Your task to perform on an android device: Open Google Maps Image 0: 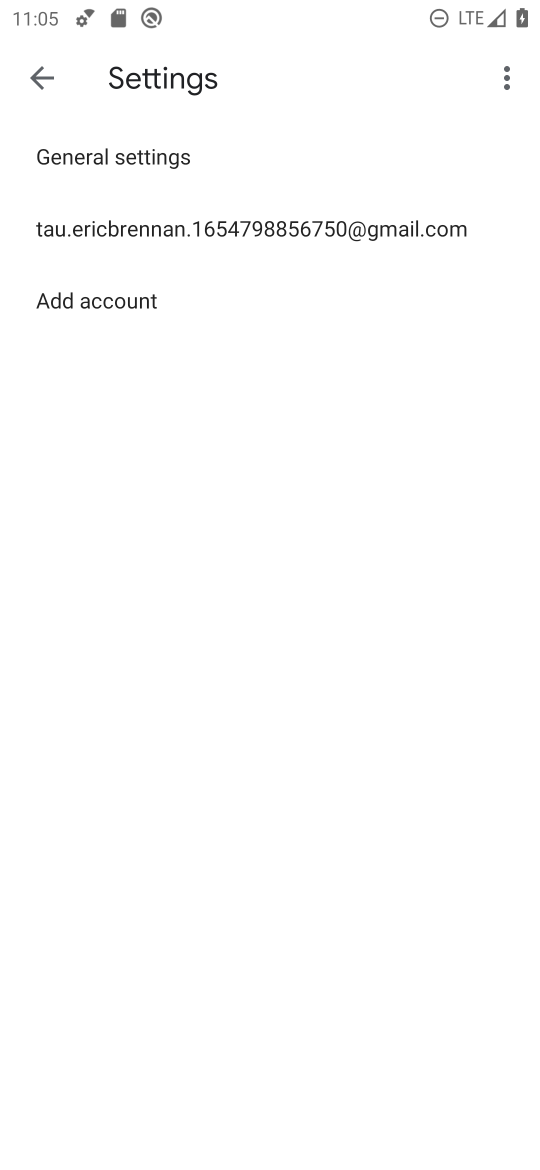
Step 0: press home button
Your task to perform on an android device: Open Google Maps Image 1: 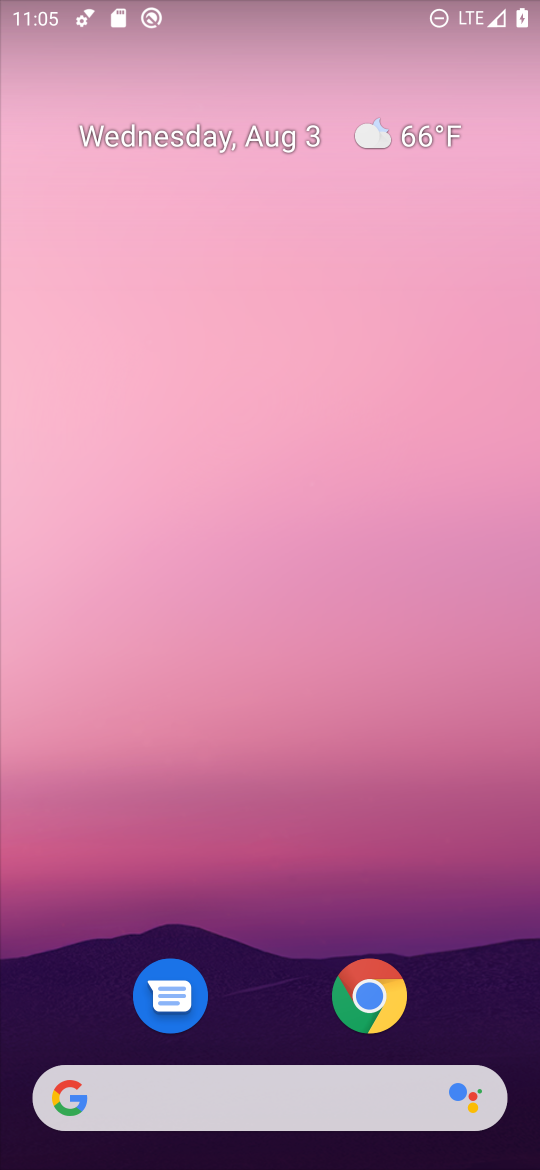
Step 1: drag from (291, 865) to (332, 47)
Your task to perform on an android device: Open Google Maps Image 2: 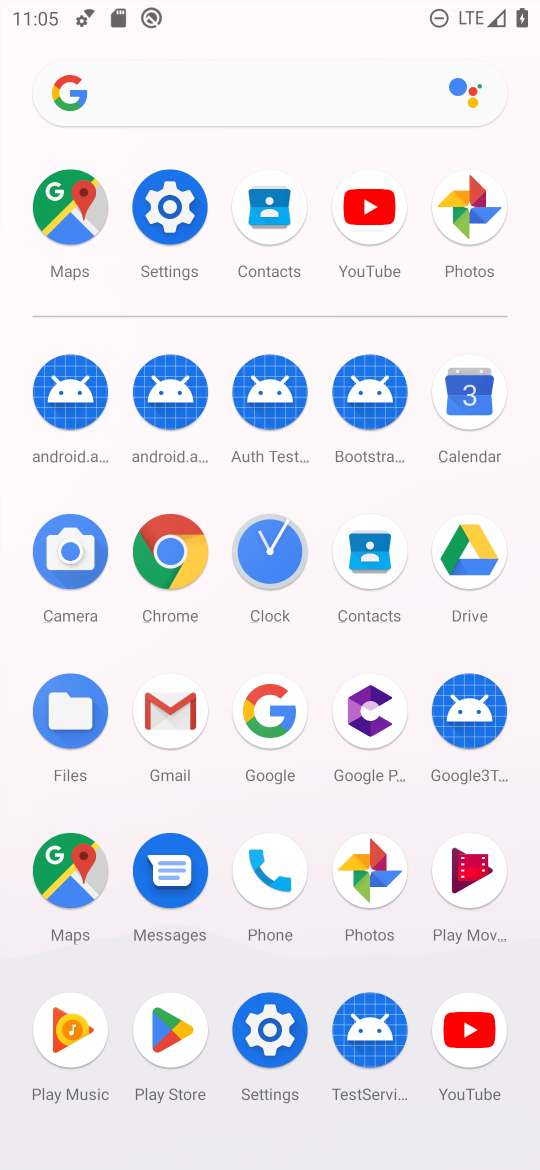
Step 2: click (69, 197)
Your task to perform on an android device: Open Google Maps Image 3: 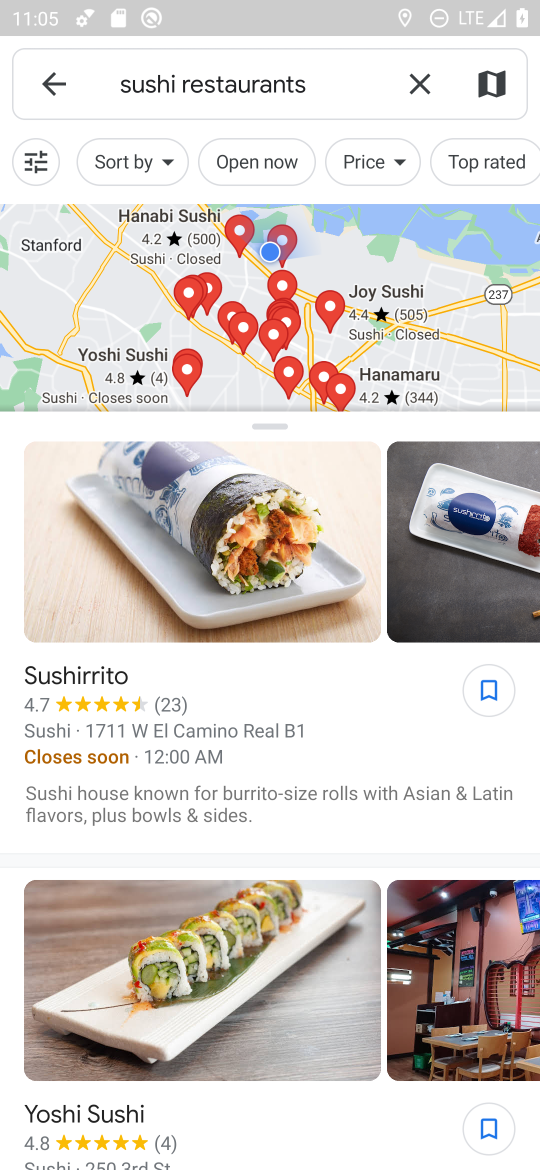
Step 3: click (53, 84)
Your task to perform on an android device: Open Google Maps Image 4: 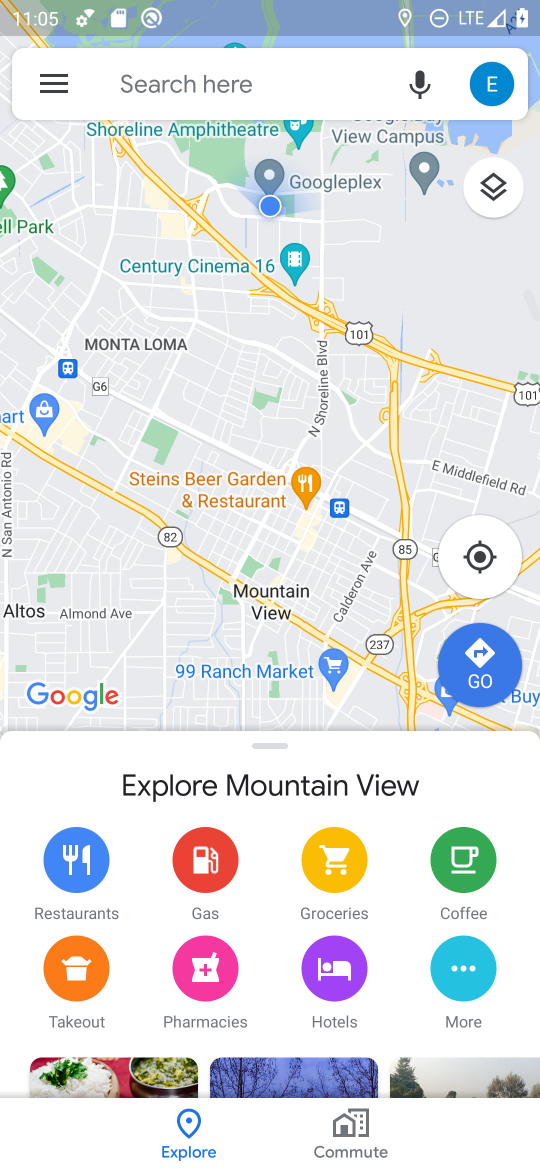
Step 4: task complete